Your task to perform on an android device: Do I have any events today? Image 0: 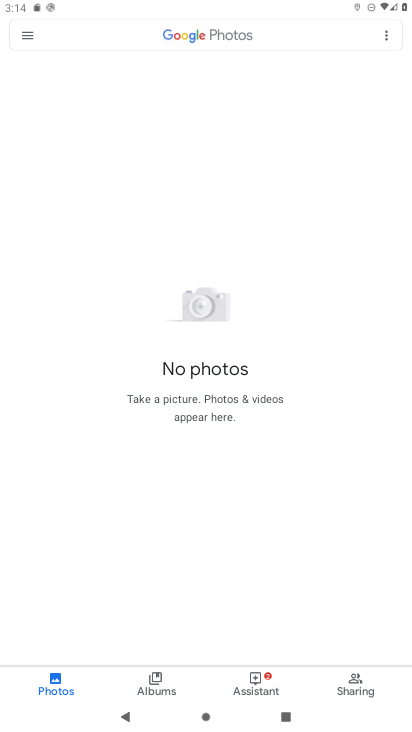
Step 0: press home button
Your task to perform on an android device: Do I have any events today? Image 1: 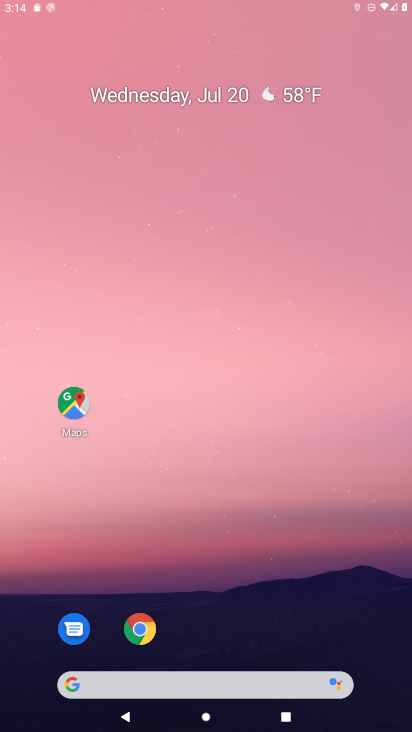
Step 1: drag from (243, 625) to (257, 69)
Your task to perform on an android device: Do I have any events today? Image 2: 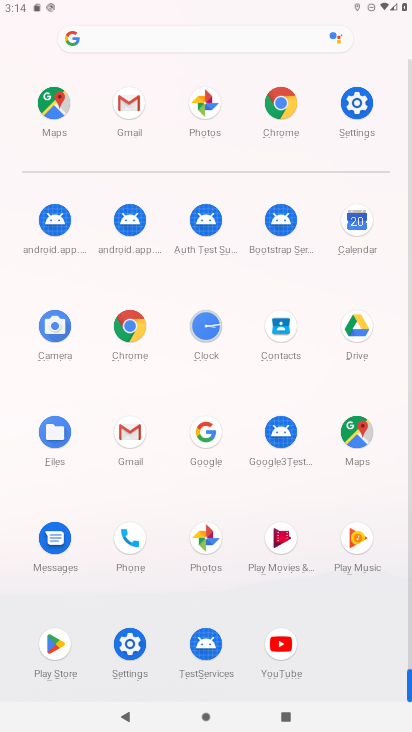
Step 2: click (350, 221)
Your task to perform on an android device: Do I have any events today? Image 3: 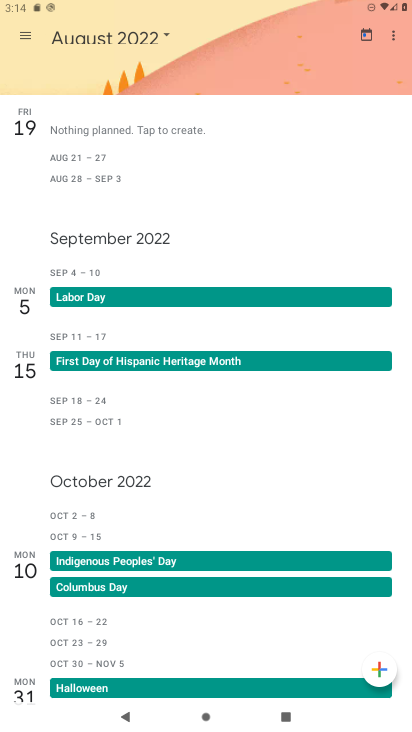
Step 3: click (109, 67)
Your task to perform on an android device: Do I have any events today? Image 4: 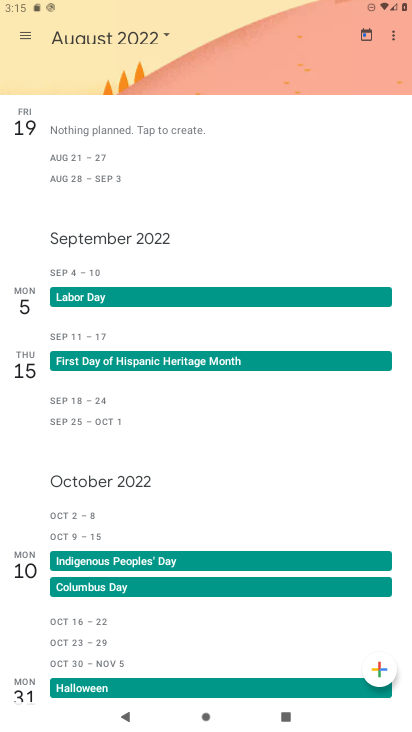
Step 4: click (163, 38)
Your task to perform on an android device: Do I have any events today? Image 5: 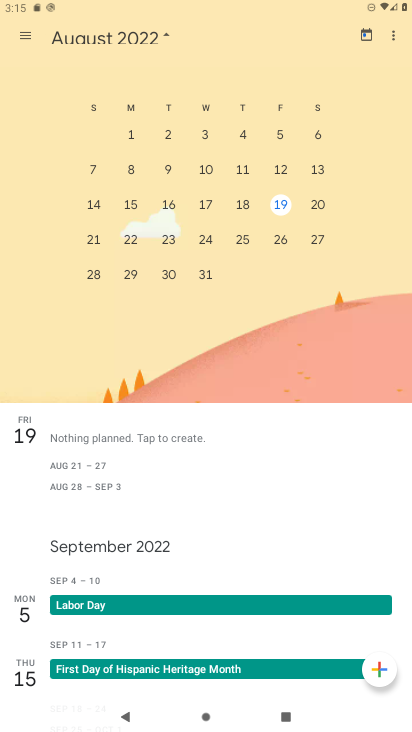
Step 5: drag from (48, 199) to (411, 224)
Your task to perform on an android device: Do I have any events today? Image 6: 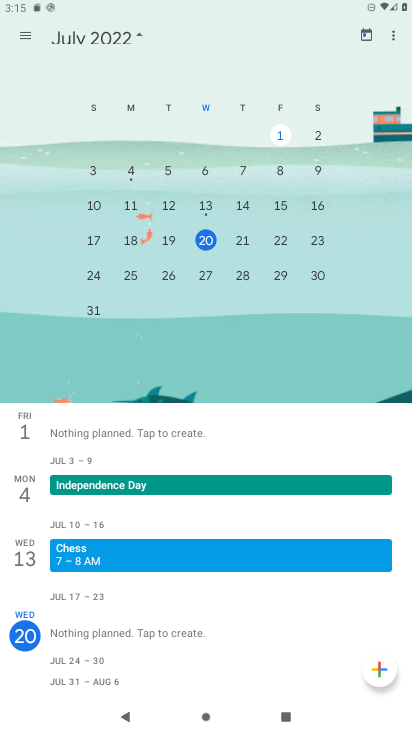
Step 6: click (208, 232)
Your task to perform on an android device: Do I have any events today? Image 7: 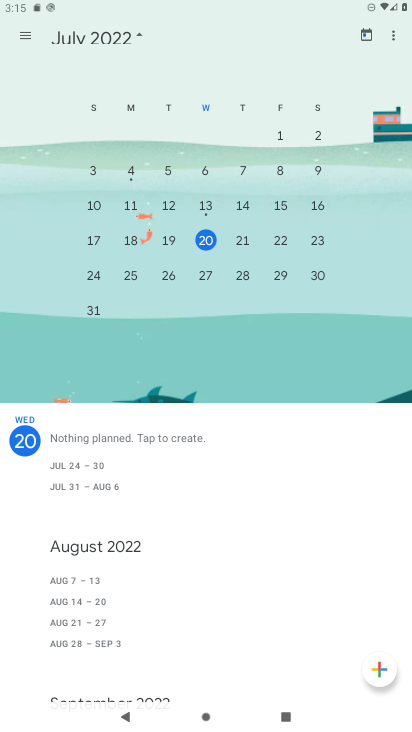
Step 7: task complete